Your task to perform on an android device: Open Chrome and go to settings Image 0: 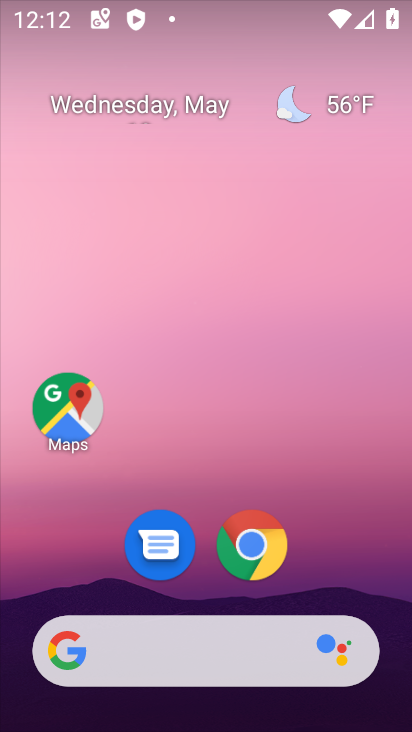
Step 0: drag from (201, 672) to (259, 103)
Your task to perform on an android device: Open Chrome and go to settings Image 1: 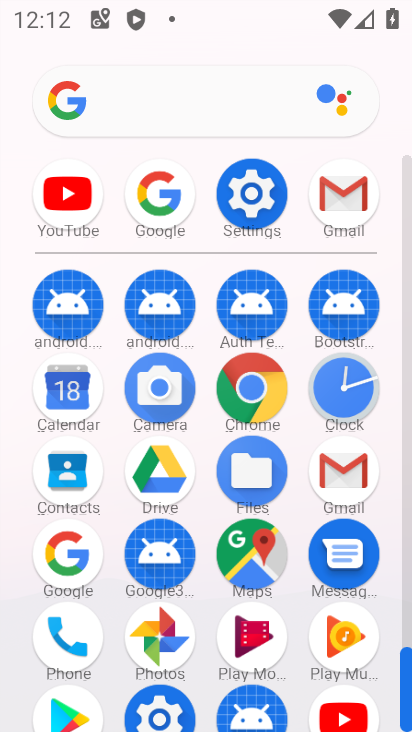
Step 1: click (235, 415)
Your task to perform on an android device: Open Chrome and go to settings Image 2: 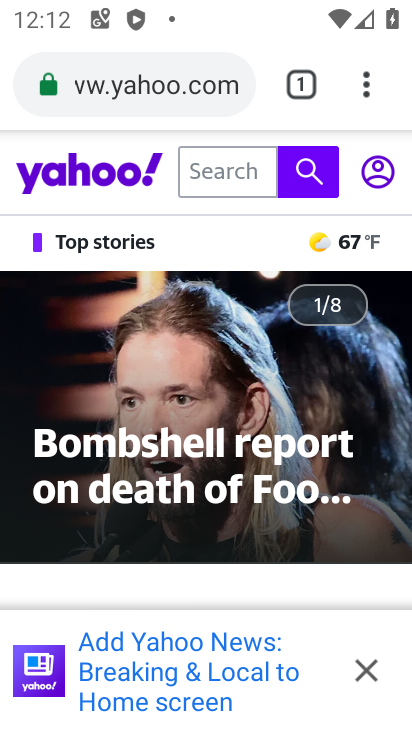
Step 2: click (368, 90)
Your task to perform on an android device: Open Chrome and go to settings Image 3: 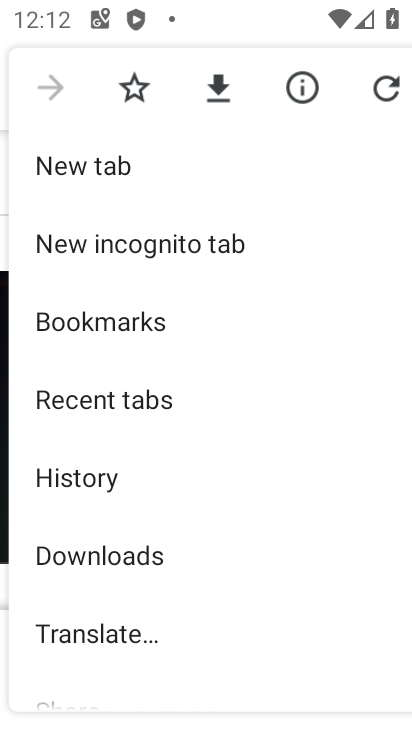
Step 3: drag from (158, 488) to (197, 162)
Your task to perform on an android device: Open Chrome and go to settings Image 4: 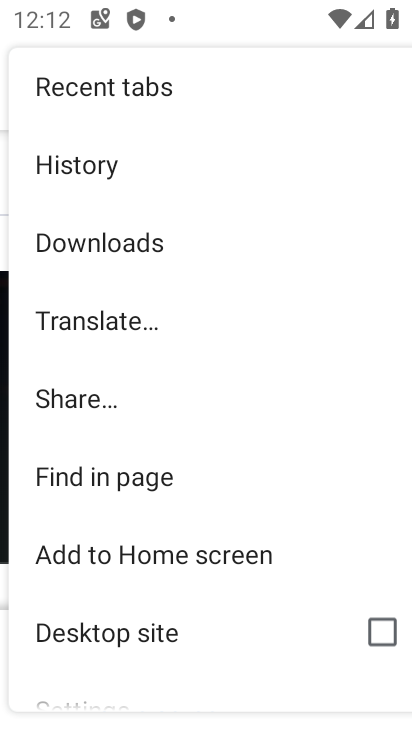
Step 4: drag from (197, 515) to (209, 301)
Your task to perform on an android device: Open Chrome and go to settings Image 5: 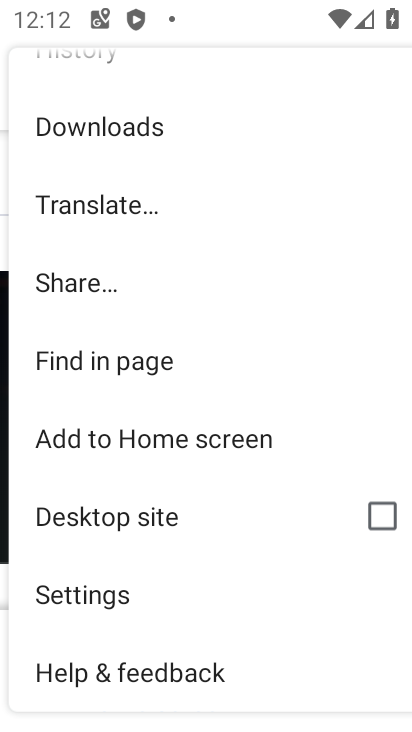
Step 5: click (142, 615)
Your task to perform on an android device: Open Chrome and go to settings Image 6: 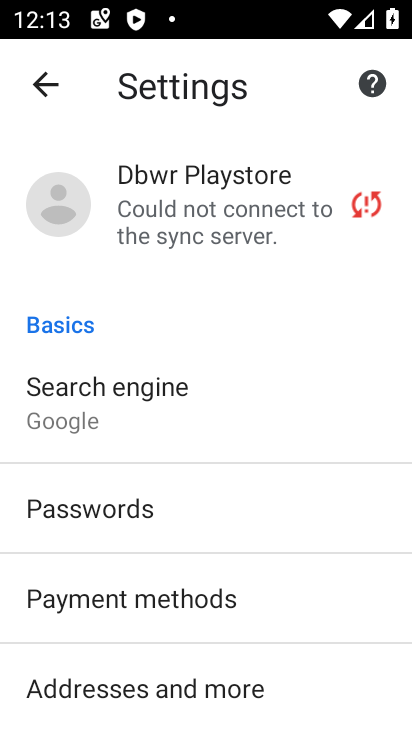
Step 6: task complete